Your task to perform on an android device: turn notification dots on Image 0: 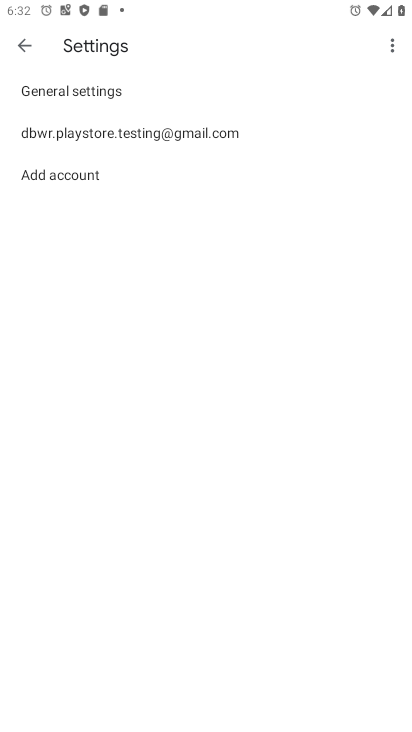
Step 0: press home button
Your task to perform on an android device: turn notification dots on Image 1: 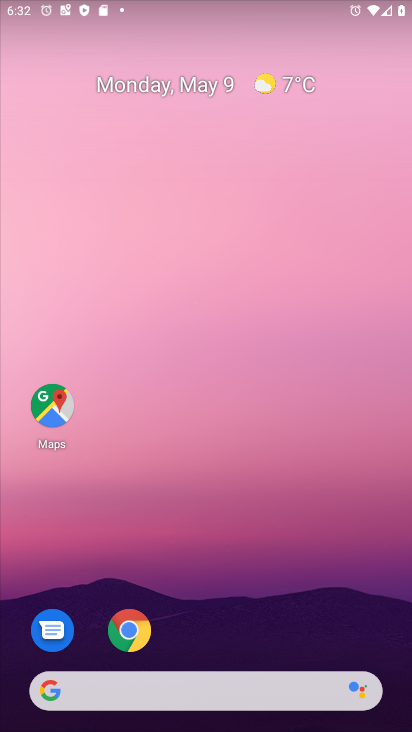
Step 1: drag from (285, 598) to (212, 104)
Your task to perform on an android device: turn notification dots on Image 2: 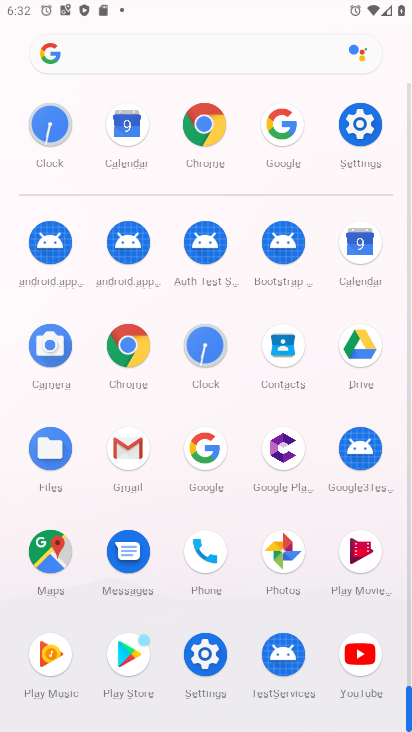
Step 2: click (367, 162)
Your task to perform on an android device: turn notification dots on Image 3: 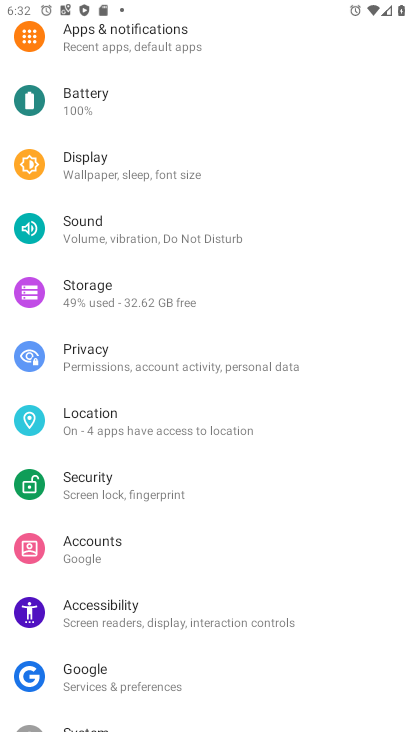
Step 3: click (127, 46)
Your task to perform on an android device: turn notification dots on Image 4: 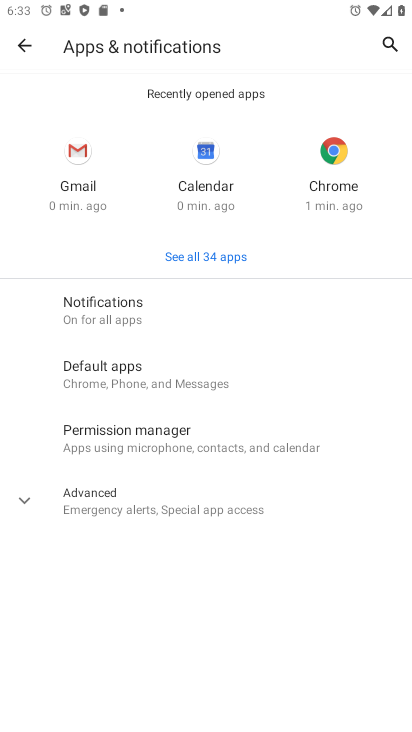
Step 4: click (121, 319)
Your task to perform on an android device: turn notification dots on Image 5: 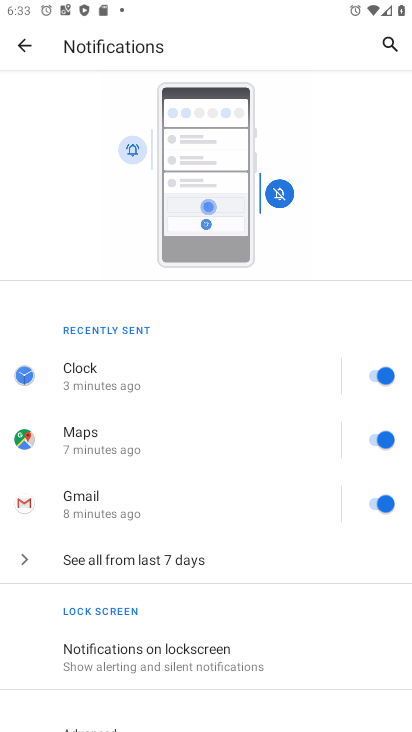
Step 5: drag from (287, 663) to (247, 238)
Your task to perform on an android device: turn notification dots on Image 6: 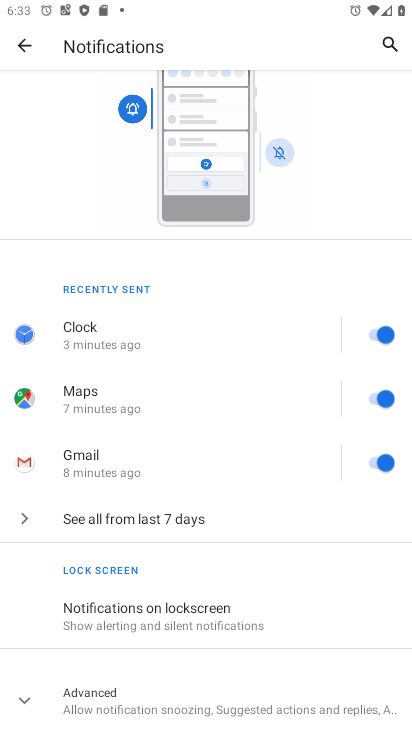
Step 6: click (158, 701)
Your task to perform on an android device: turn notification dots on Image 7: 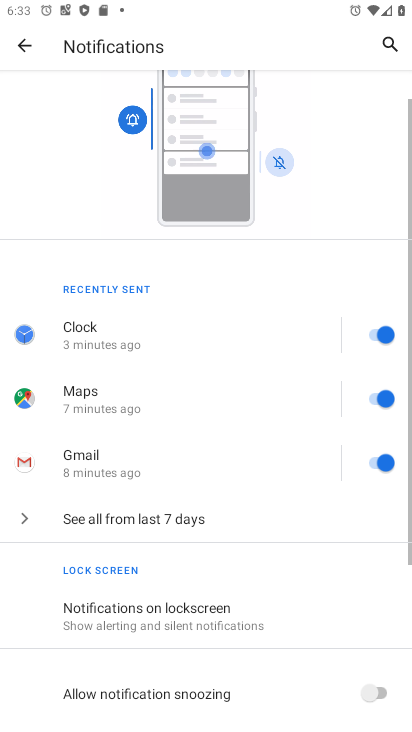
Step 7: task complete